Your task to perform on an android device: find snoozed emails in the gmail app Image 0: 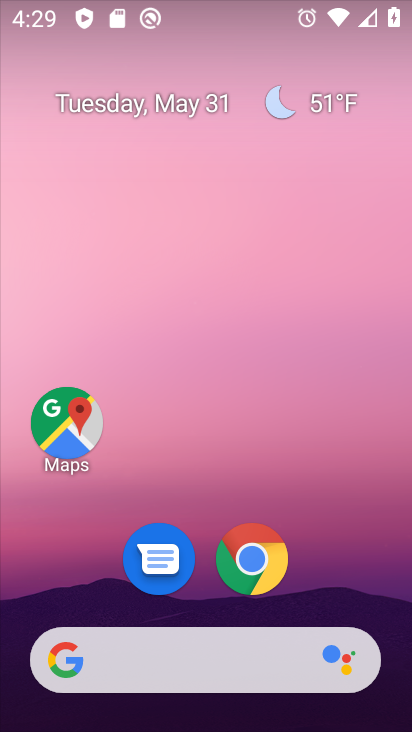
Step 0: drag from (194, 590) to (245, 0)
Your task to perform on an android device: find snoozed emails in the gmail app Image 1: 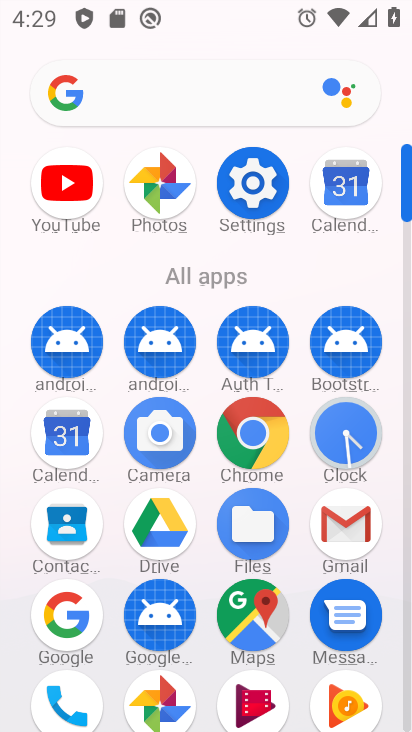
Step 1: click (341, 529)
Your task to perform on an android device: find snoozed emails in the gmail app Image 2: 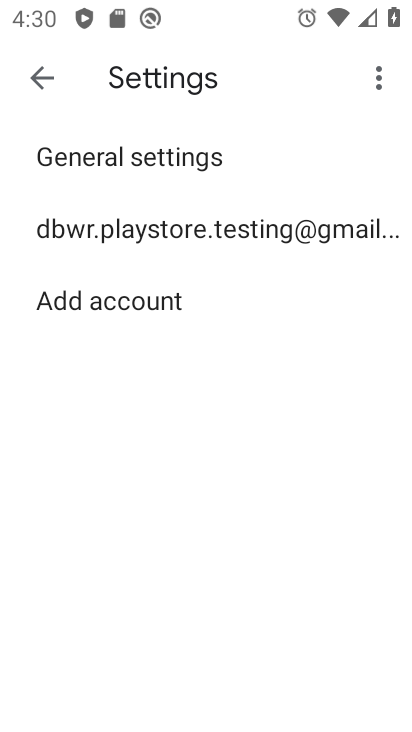
Step 2: click (49, 82)
Your task to perform on an android device: find snoozed emails in the gmail app Image 3: 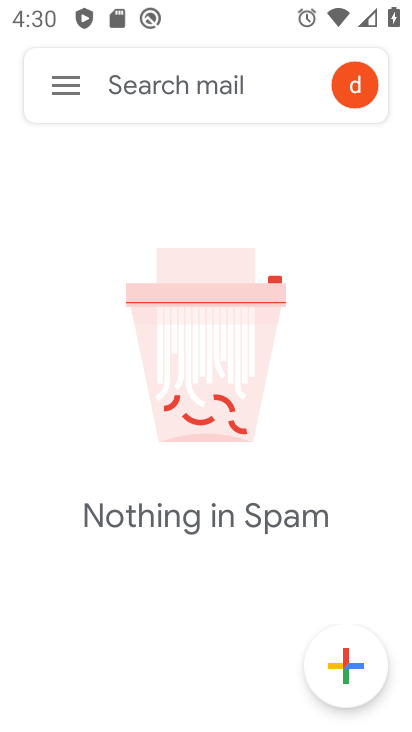
Step 3: click (59, 79)
Your task to perform on an android device: find snoozed emails in the gmail app Image 4: 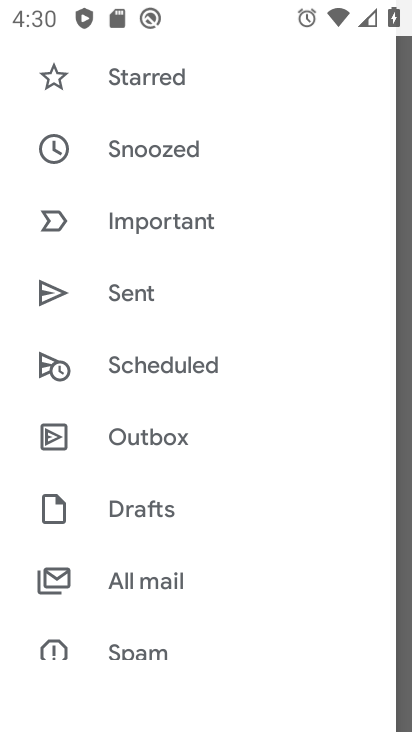
Step 4: click (179, 155)
Your task to perform on an android device: find snoozed emails in the gmail app Image 5: 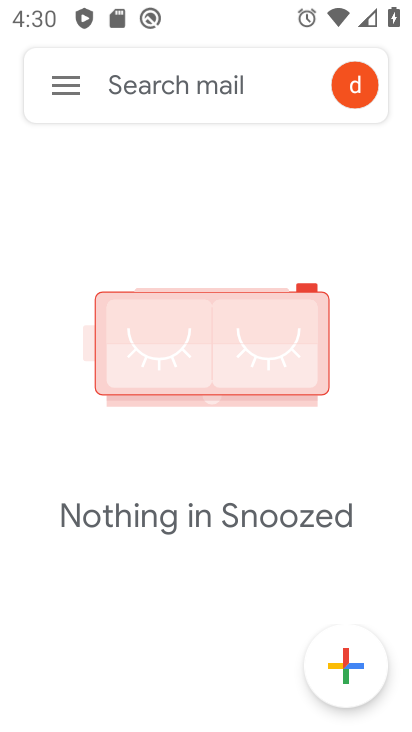
Step 5: task complete